Your task to perform on an android device: Open Wikipedia Image 0: 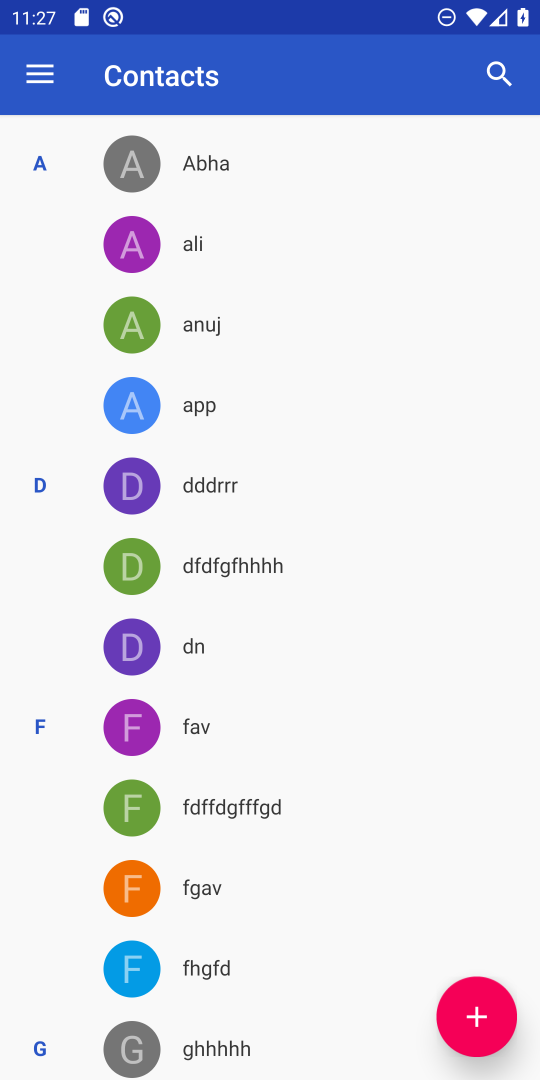
Step 0: press home button
Your task to perform on an android device: Open Wikipedia Image 1: 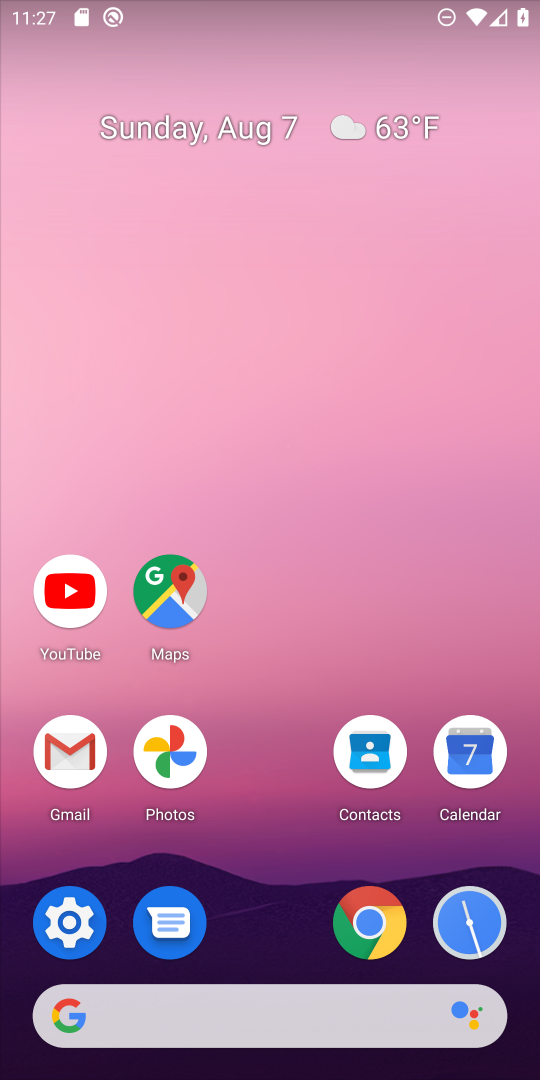
Step 1: click (366, 923)
Your task to perform on an android device: Open Wikipedia Image 2: 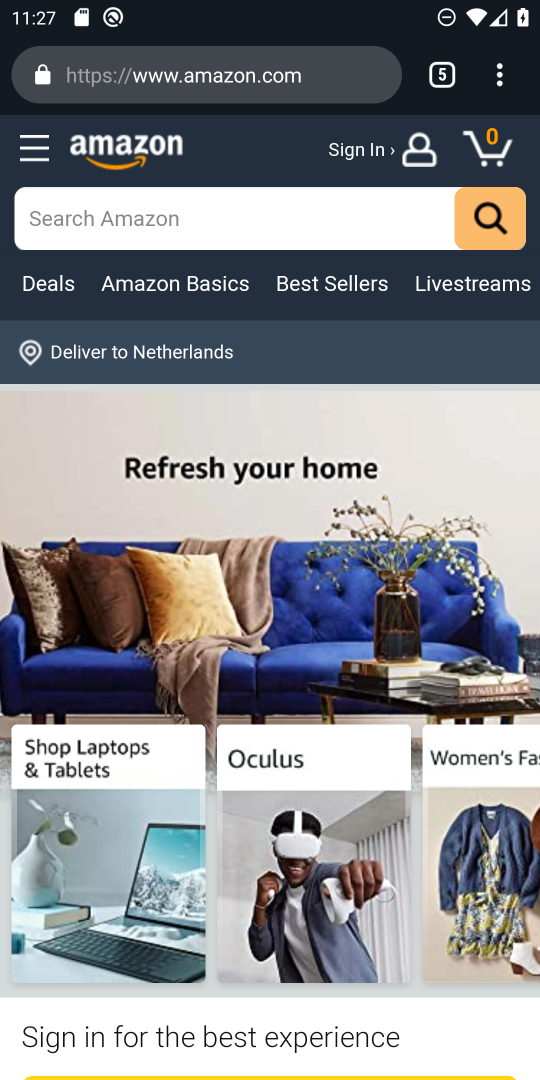
Step 2: click (508, 70)
Your task to perform on an android device: Open Wikipedia Image 3: 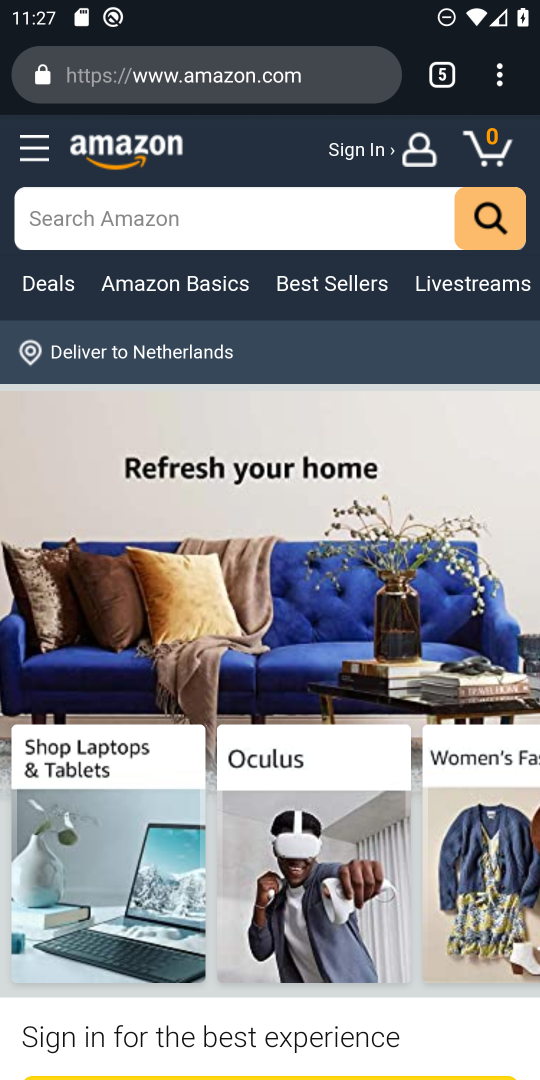
Step 3: click (472, 57)
Your task to perform on an android device: Open Wikipedia Image 4: 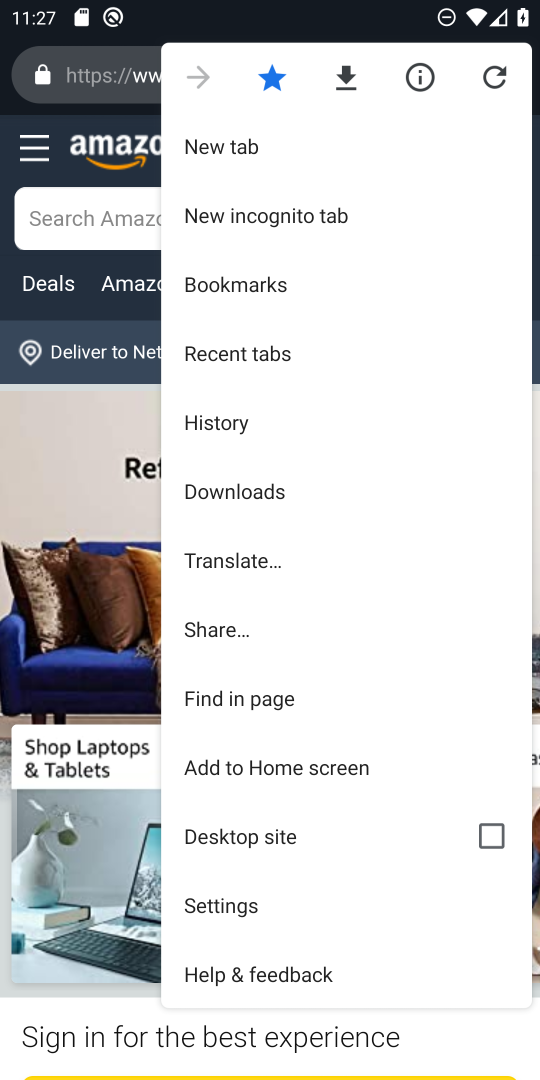
Step 4: click (223, 142)
Your task to perform on an android device: Open Wikipedia Image 5: 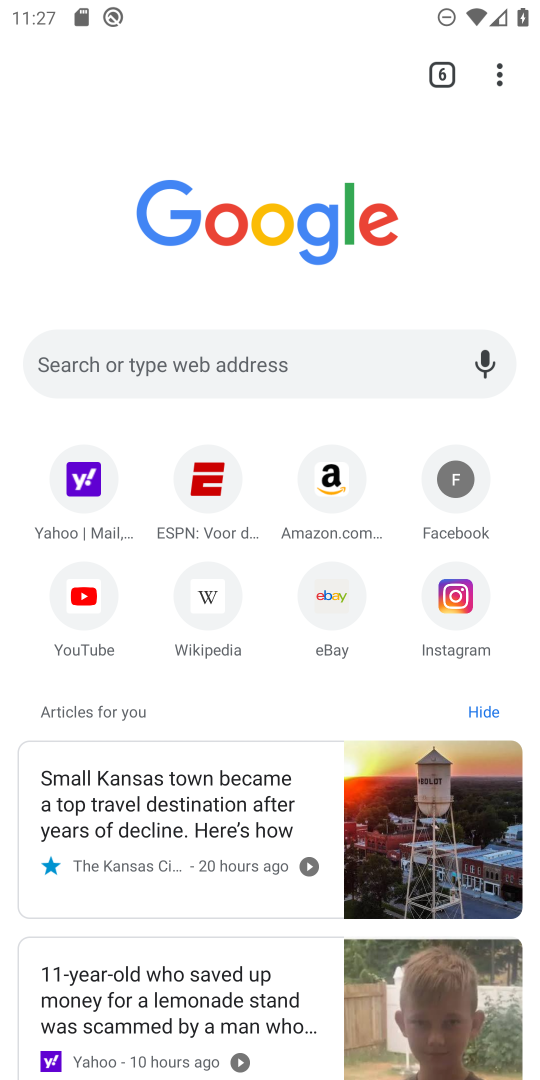
Step 5: click (223, 603)
Your task to perform on an android device: Open Wikipedia Image 6: 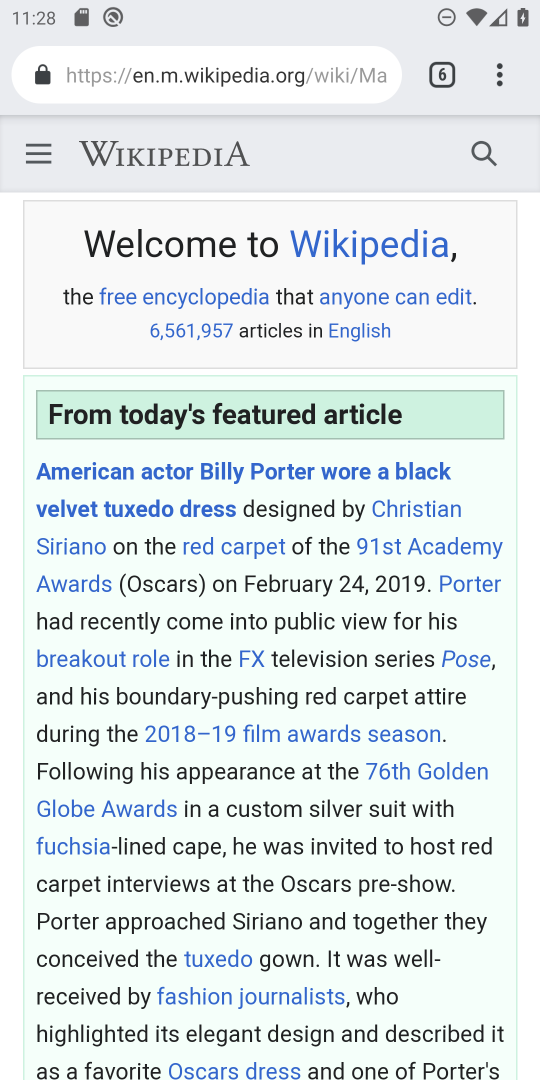
Step 6: task complete